Your task to perform on an android device: turn pop-ups on in chrome Image 0: 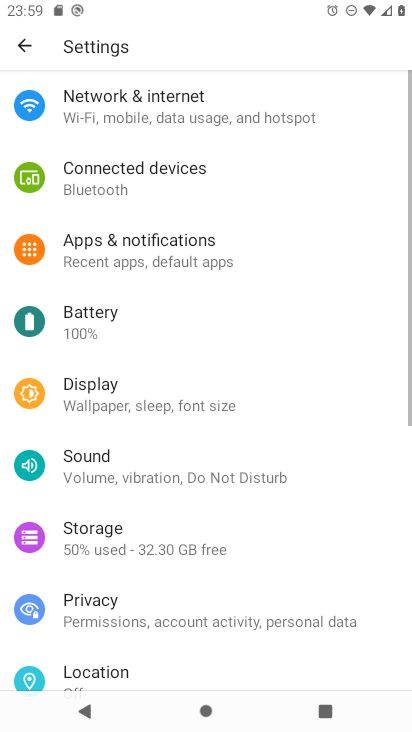
Step 0: press home button
Your task to perform on an android device: turn pop-ups on in chrome Image 1: 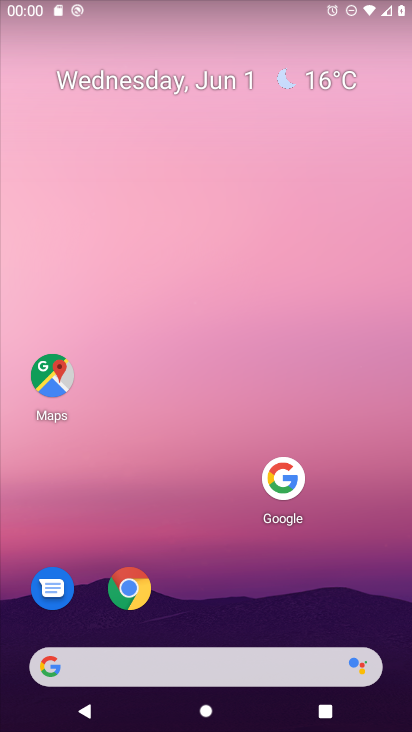
Step 1: click (135, 593)
Your task to perform on an android device: turn pop-ups on in chrome Image 2: 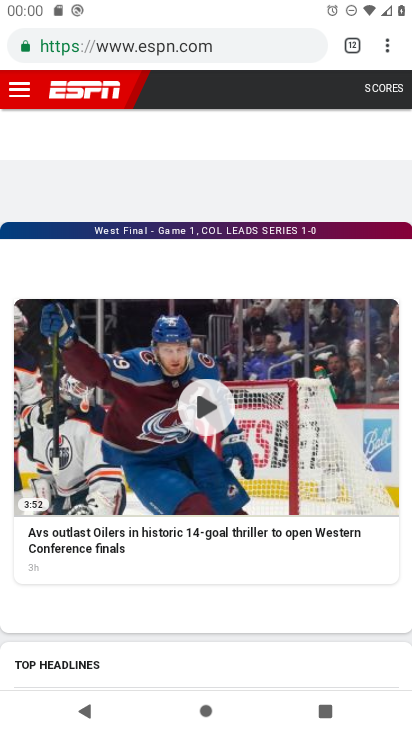
Step 2: drag from (388, 50) to (238, 556)
Your task to perform on an android device: turn pop-ups on in chrome Image 3: 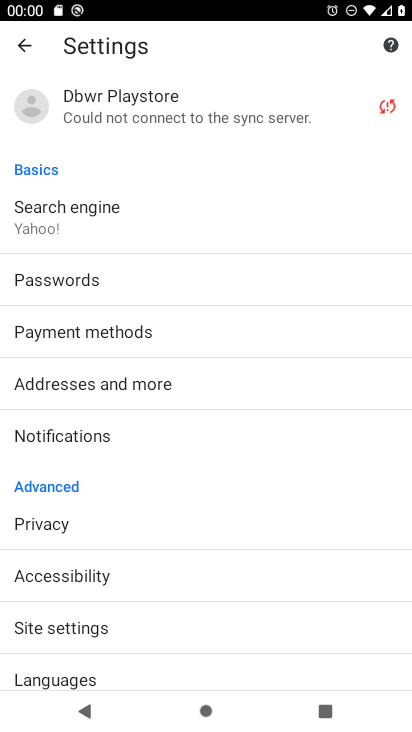
Step 3: click (49, 630)
Your task to perform on an android device: turn pop-ups on in chrome Image 4: 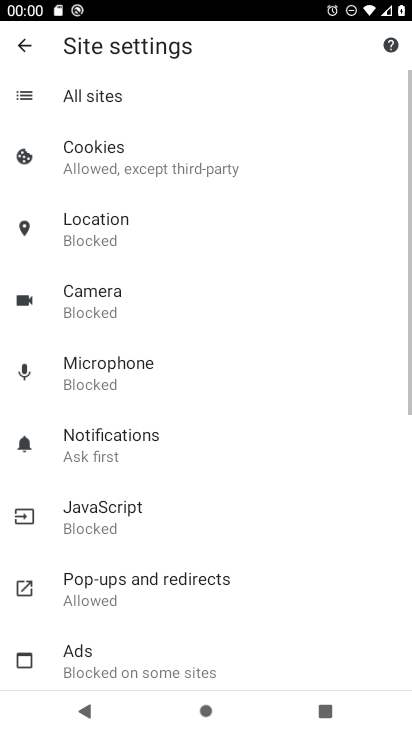
Step 4: click (179, 585)
Your task to perform on an android device: turn pop-ups on in chrome Image 5: 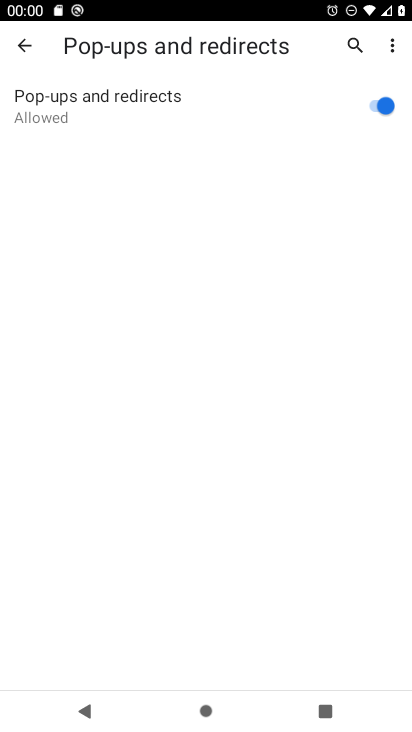
Step 5: task complete